Your task to perform on an android device: When is my next meeting? Image 0: 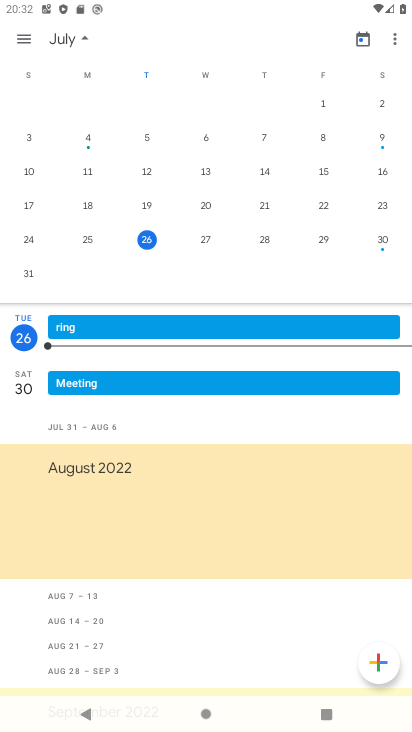
Step 0: press home button
Your task to perform on an android device: When is my next meeting? Image 1: 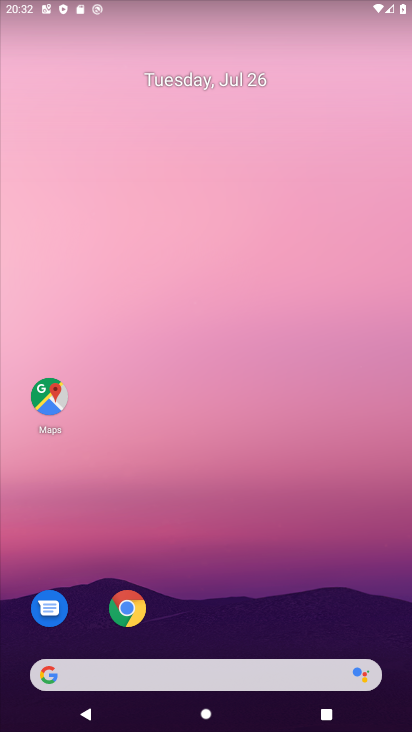
Step 1: drag from (25, 711) to (199, 195)
Your task to perform on an android device: When is my next meeting? Image 2: 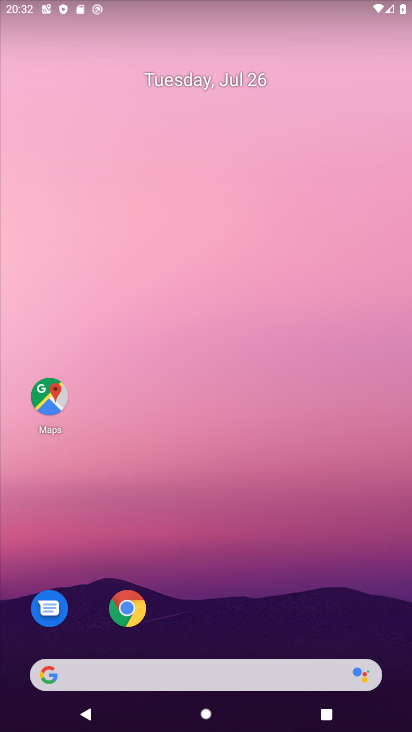
Step 2: drag from (28, 705) to (202, 3)
Your task to perform on an android device: When is my next meeting? Image 3: 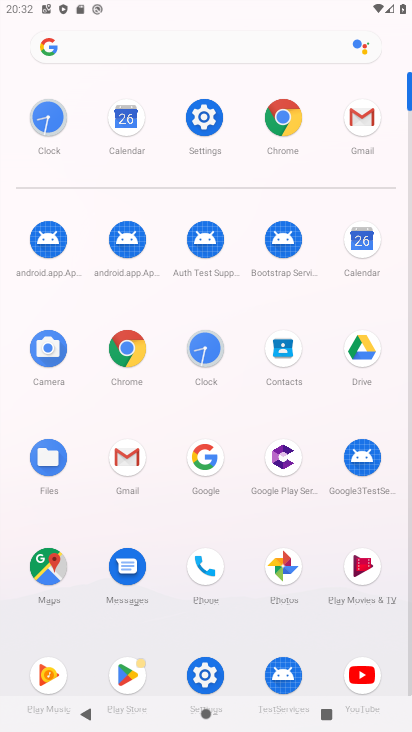
Step 3: click (362, 239)
Your task to perform on an android device: When is my next meeting? Image 4: 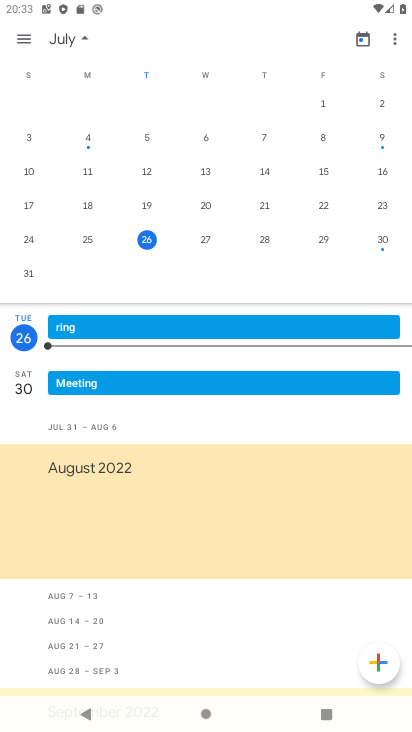
Step 4: task complete